Your task to perform on an android device: toggle wifi Image 0: 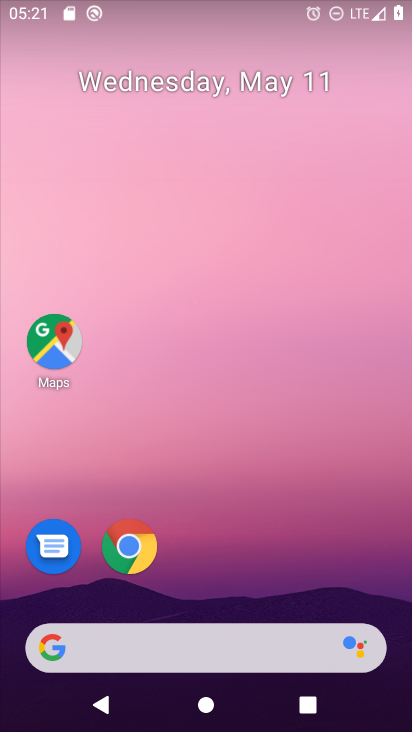
Step 0: drag from (274, 636) to (281, 5)
Your task to perform on an android device: toggle wifi Image 1: 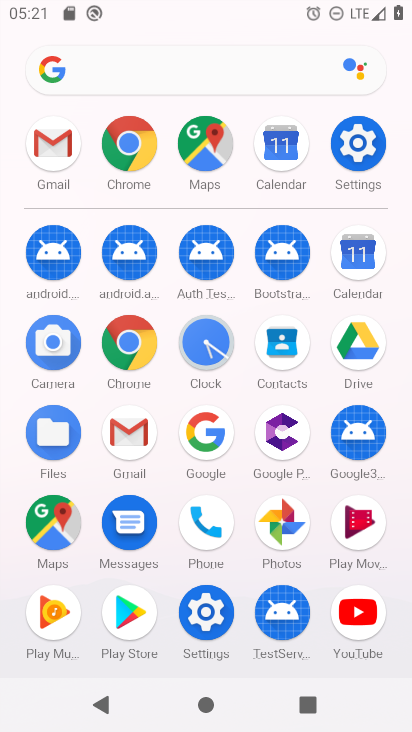
Step 1: click (202, 622)
Your task to perform on an android device: toggle wifi Image 2: 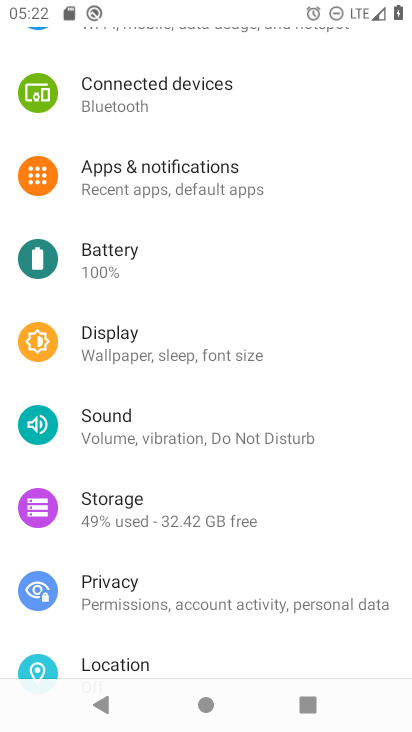
Step 2: drag from (261, 241) to (242, 697)
Your task to perform on an android device: toggle wifi Image 3: 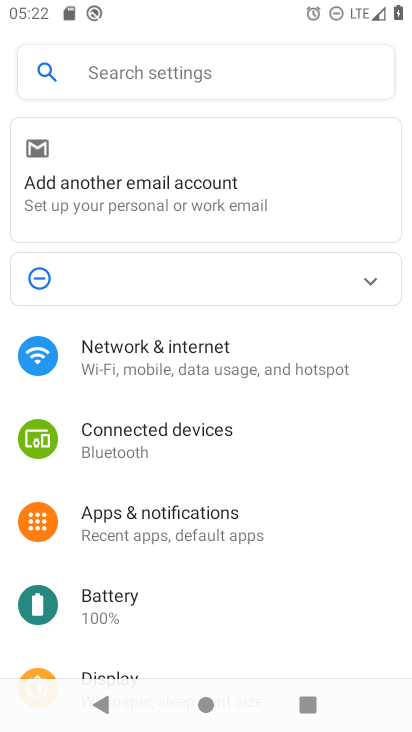
Step 3: click (207, 364)
Your task to perform on an android device: toggle wifi Image 4: 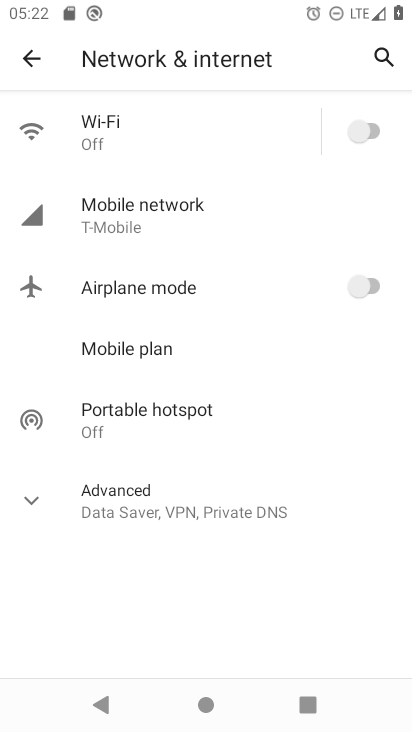
Step 4: click (372, 136)
Your task to perform on an android device: toggle wifi Image 5: 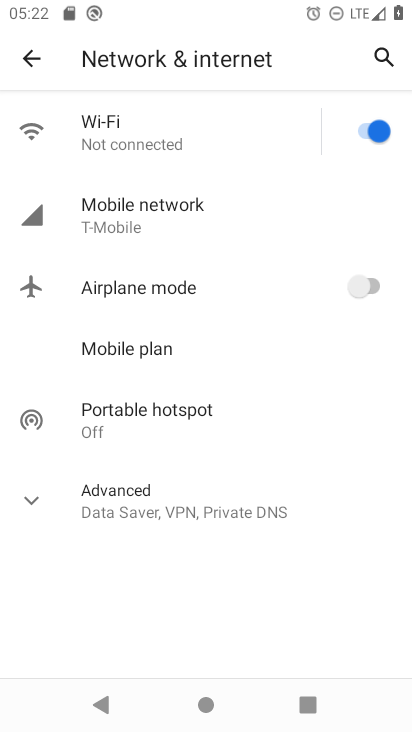
Step 5: task complete